Your task to perform on an android device: toggle priority inbox in the gmail app Image 0: 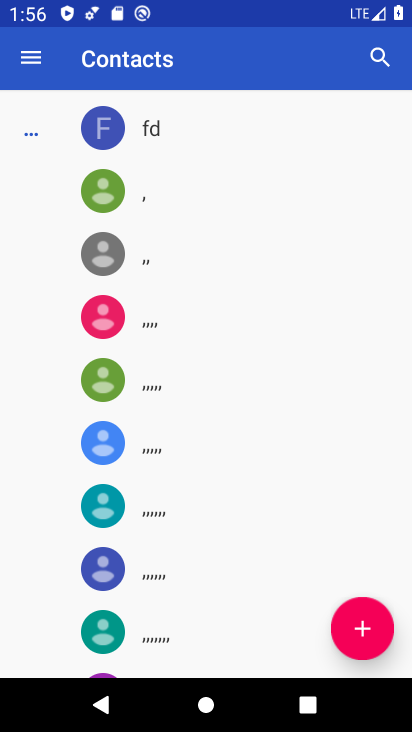
Step 0: press home button
Your task to perform on an android device: toggle priority inbox in the gmail app Image 1: 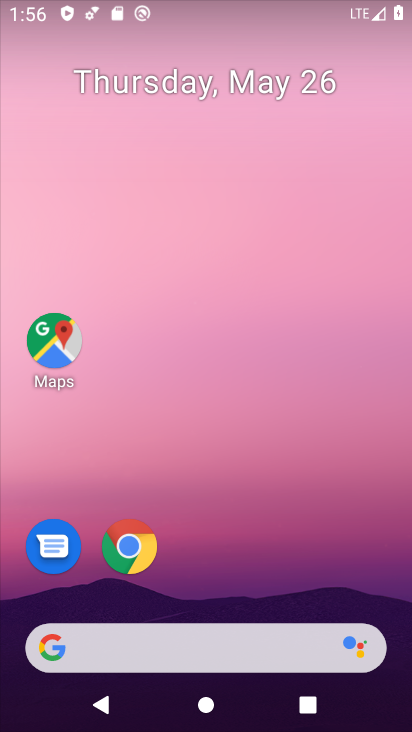
Step 1: drag from (309, 532) to (219, 53)
Your task to perform on an android device: toggle priority inbox in the gmail app Image 2: 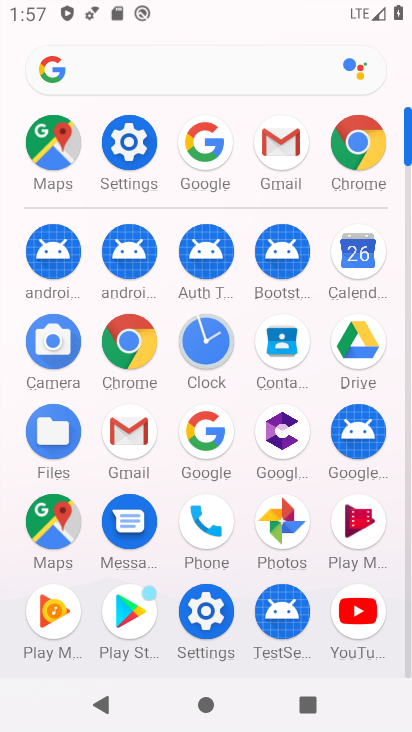
Step 2: click (294, 153)
Your task to perform on an android device: toggle priority inbox in the gmail app Image 3: 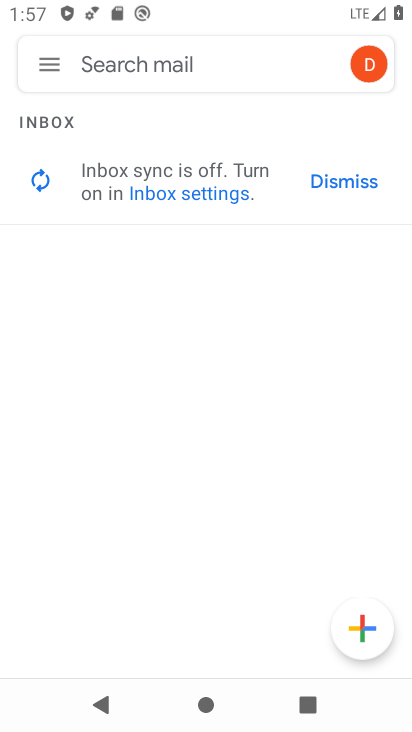
Step 3: click (52, 59)
Your task to perform on an android device: toggle priority inbox in the gmail app Image 4: 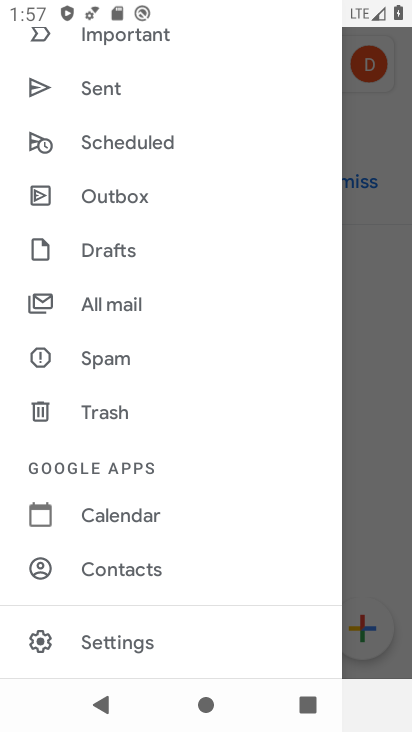
Step 4: click (172, 638)
Your task to perform on an android device: toggle priority inbox in the gmail app Image 5: 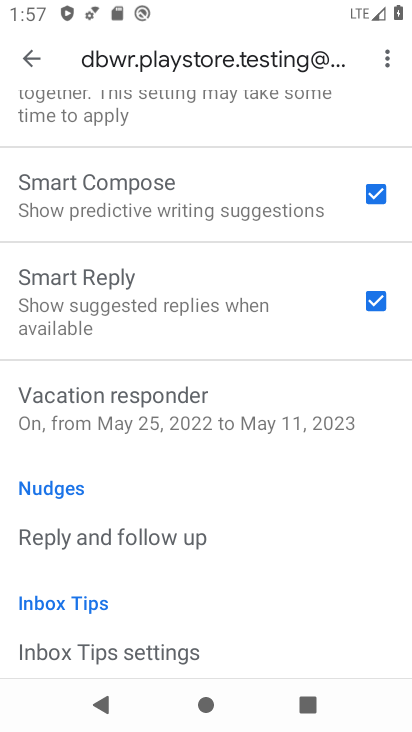
Step 5: drag from (201, 203) to (198, 726)
Your task to perform on an android device: toggle priority inbox in the gmail app Image 6: 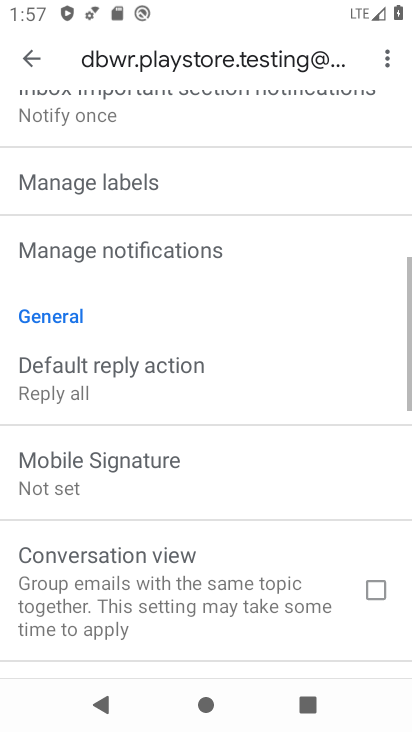
Step 6: drag from (192, 160) to (178, 609)
Your task to perform on an android device: toggle priority inbox in the gmail app Image 7: 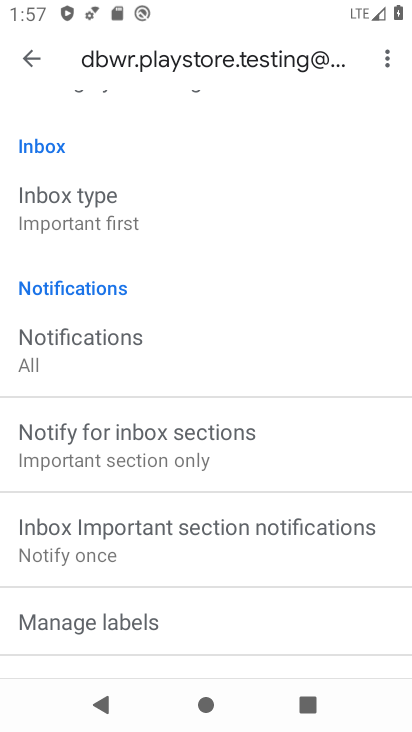
Step 7: drag from (193, 208) to (185, 515)
Your task to perform on an android device: toggle priority inbox in the gmail app Image 8: 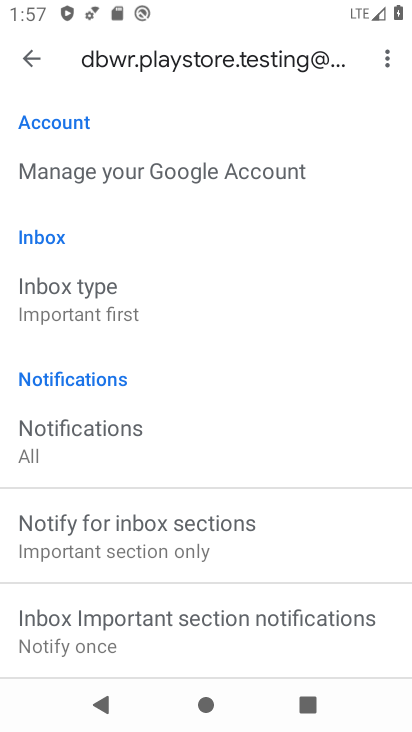
Step 8: click (117, 299)
Your task to perform on an android device: toggle priority inbox in the gmail app Image 9: 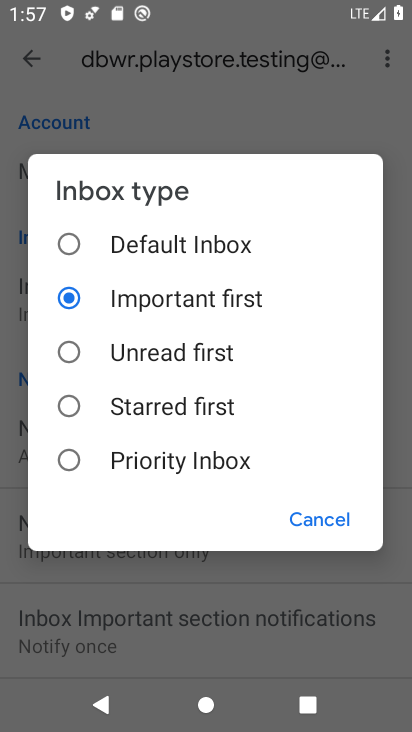
Step 9: click (185, 458)
Your task to perform on an android device: toggle priority inbox in the gmail app Image 10: 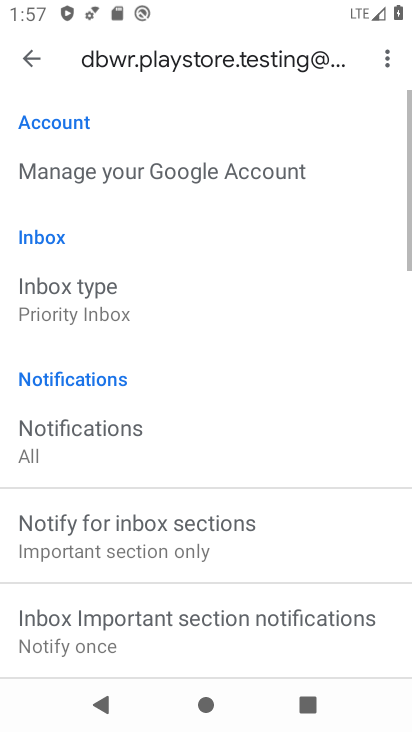
Step 10: task complete